Your task to perform on an android device: What's the weather going to be this weekend? Image 0: 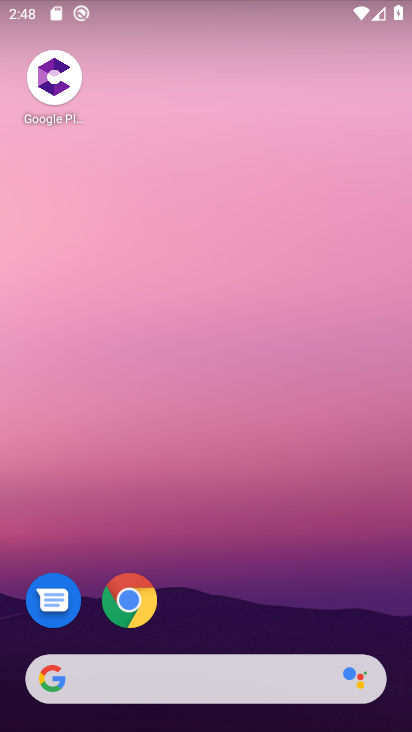
Step 0: drag from (211, 655) to (210, 272)
Your task to perform on an android device: What's the weather going to be this weekend? Image 1: 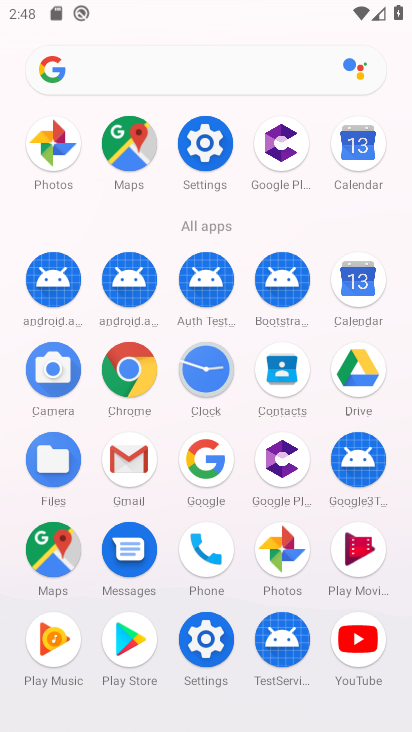
Step 1: click (198, 456)
Your task to perform on an android device: What's the weather going to be this weekend? Image 2: 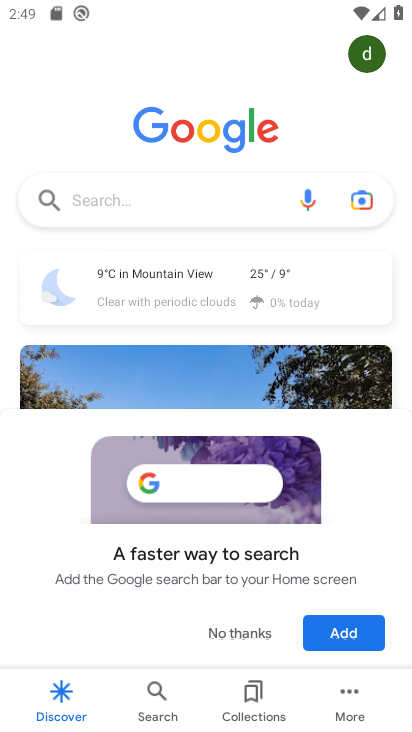
Step 2: click (124, 188)
Your task to perform on an android device: What's the weather going to be this weekend? Image 3: 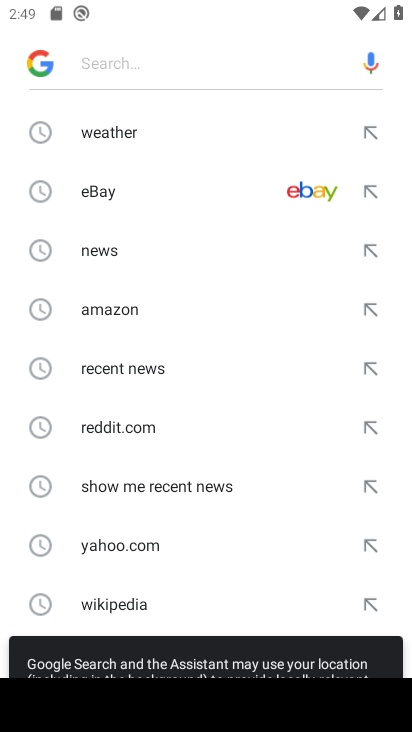
Step 3: drag from (172, 650) to (217, 285)
Your task to perform on an android device: What's the weather going to be this weekend? Image 4: 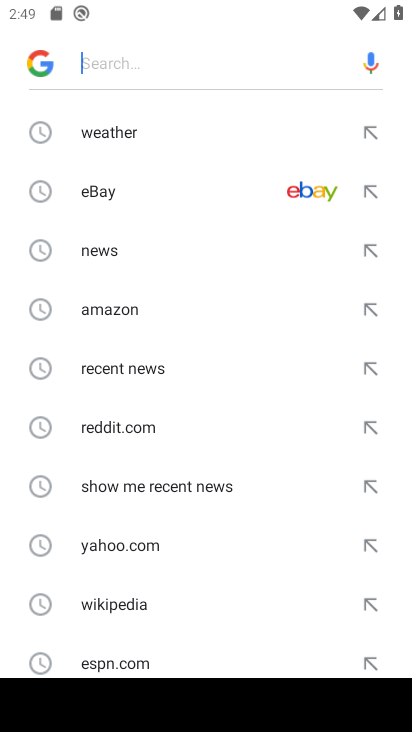
Step 4: drag from (178, 591) to (230, 267)
Your task to perform on an android device: What's the weather going to be this weekend? Image 5: 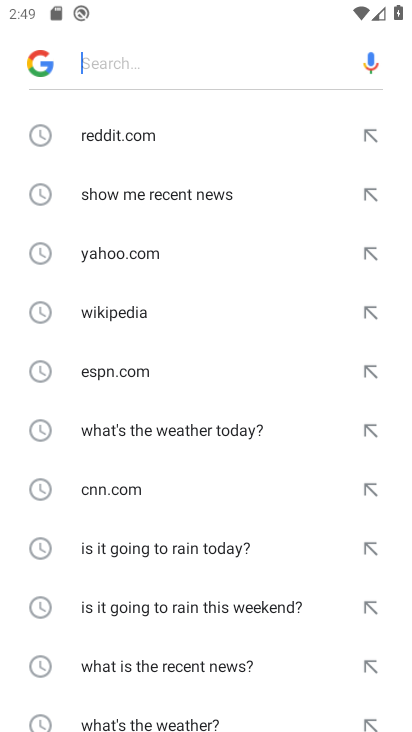
Step 5: drag from (179, 673) to (198, 415)
Your task to perform on an android device: What's the weather going to be this weekend? Image 6: 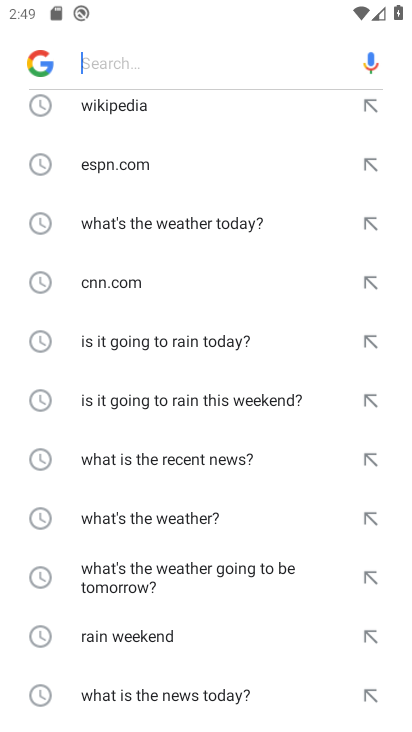
Step 6: drag from (199, 691) to (261, 378)
Your task to perform on an android device: What's the weather going to be this weekend? Image 7: 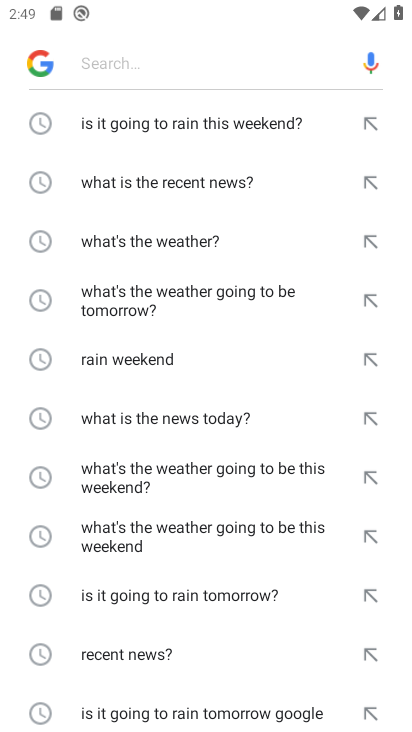
Step 7: click (246, 534)
Your task to perform on an android device: What's the weather going to be this weekend? Image 8: 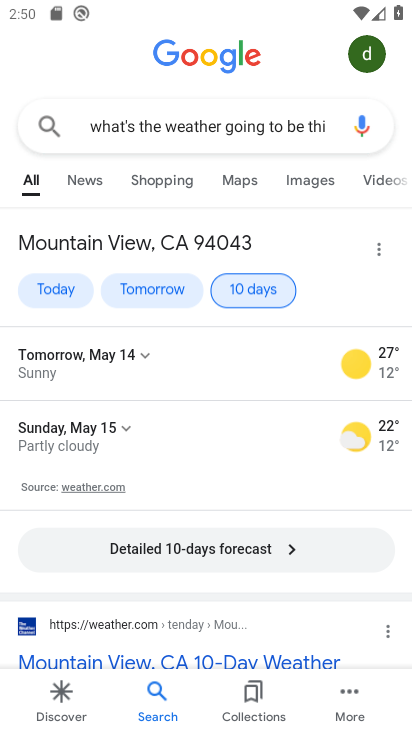
Step 8: click (181, 551)
Your task to perform on an android device: What's the weather going to be this weekend? Image 9: 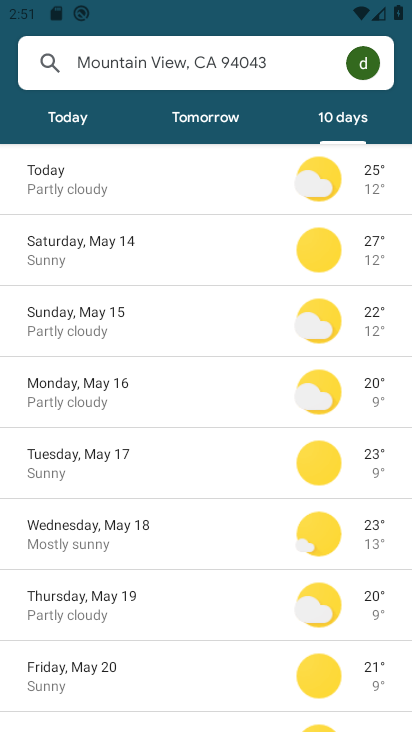
Step 9: task complete